Your task to perform on an android device: toggle show notifications on the lock screen Image 0: 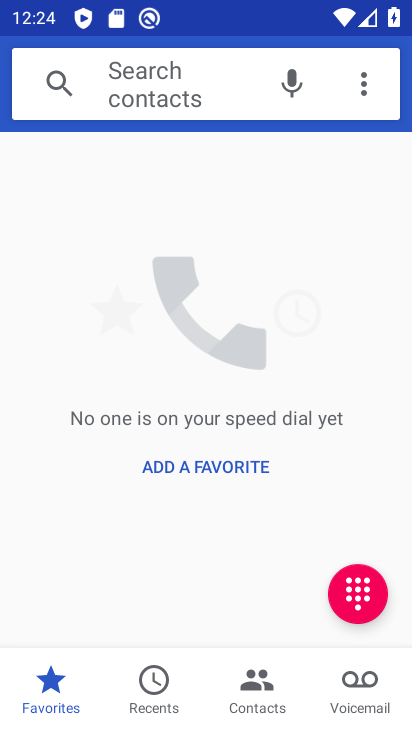
Step 0: press home button
Your task to perform on an android device: toggle show notifications on the lock screen Image 1: 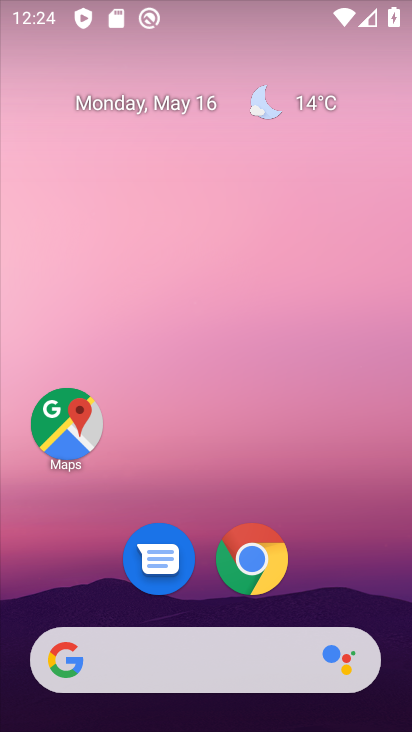
Step 1: drag from (370, 556) to (273, 48)
Your task to perform on an android device: toggle show notifications on the lock screen Image 2: 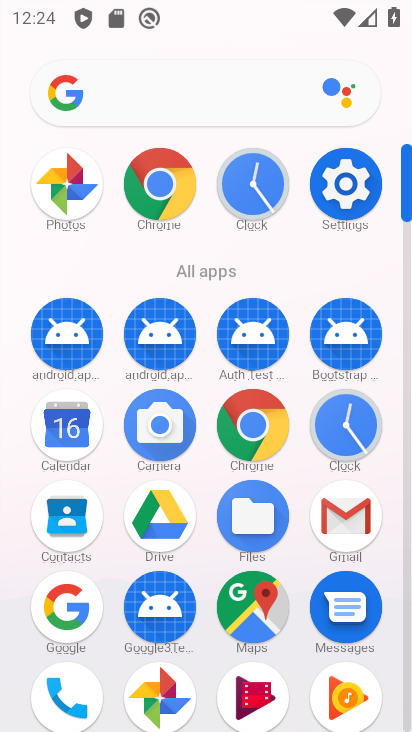
Step 2: click (346, 232)
Your task to perform on an android device: toggle show notifications on the lock screen Image 3: 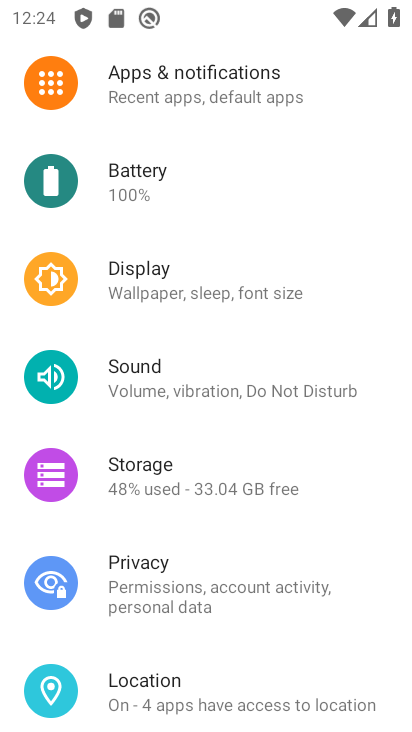
Step 3: click (215, 99)
Your task to perform on an android device: toggle show notifications on the lock screen Image 4: 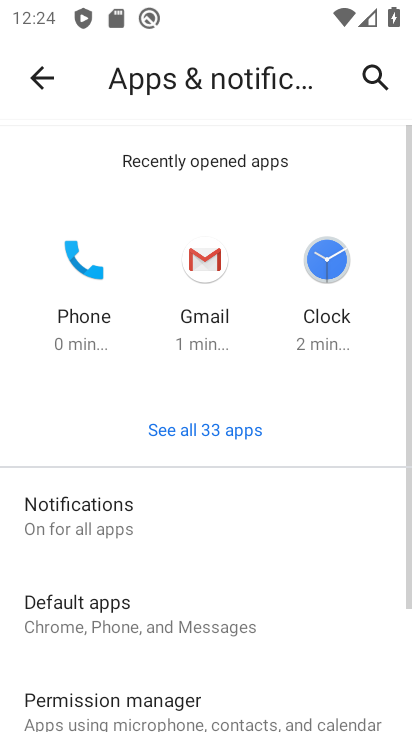
Step 4: click (82, 515)
Your task to perform on an android device: toggle show notifications on the lock screen Image 5: 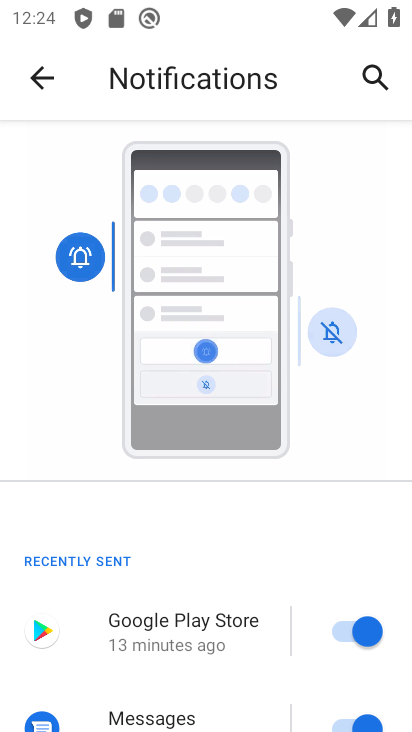
Step 5: drag from (187, 603) to (170, 240)
Your task to perform on an android device: toggle show notifications on the lock screen Image 6: 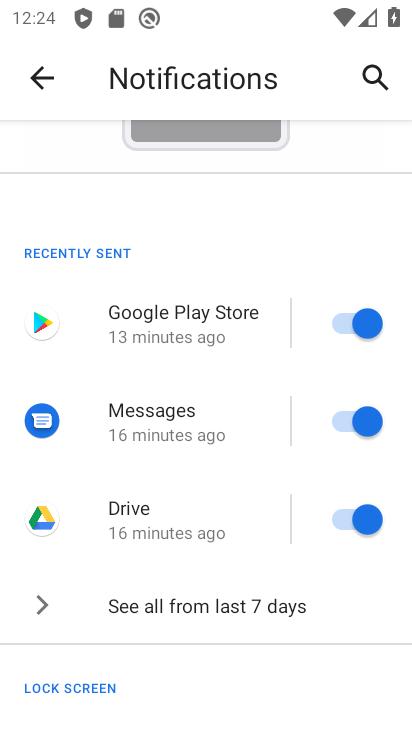
Step 6: drag from (152, 643) to (129, 240)
Your task to perform on an android device: toggle show notifications on the lock screen Image 7: 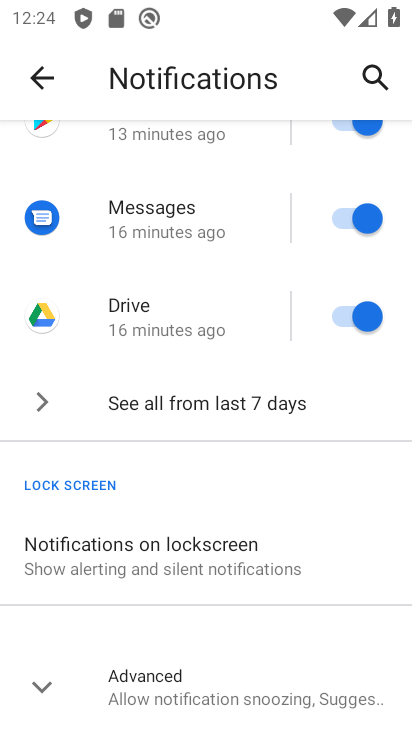
Step 7: drag from (240, 641) to (307, 149)
Your task to perform on an android device: toggle show notifications on the lock screen Image 8: 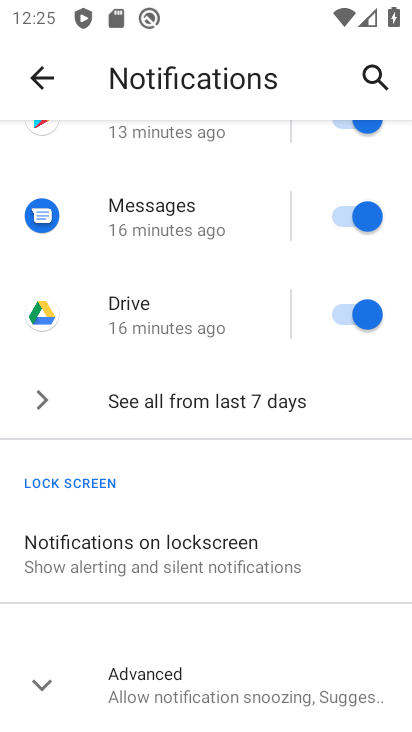
Step 8: click (258, 554)
Your task to perform on an android device: toggle show notifications on the lock screen Image 9: 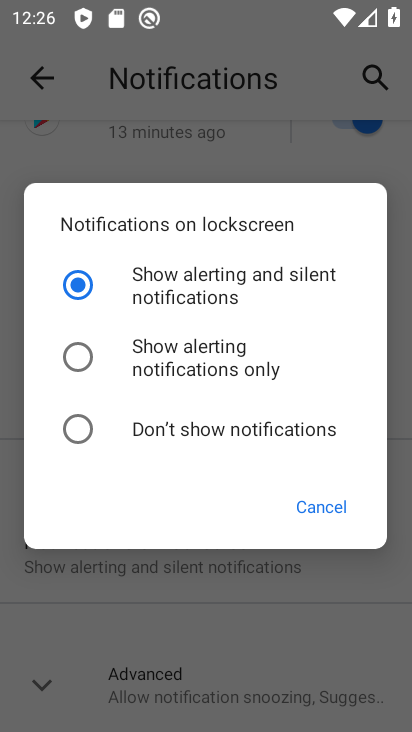
Step 9: click (82, 358)
Your task to perform on an android device: toggle show notifications on the lock screen Image 10: 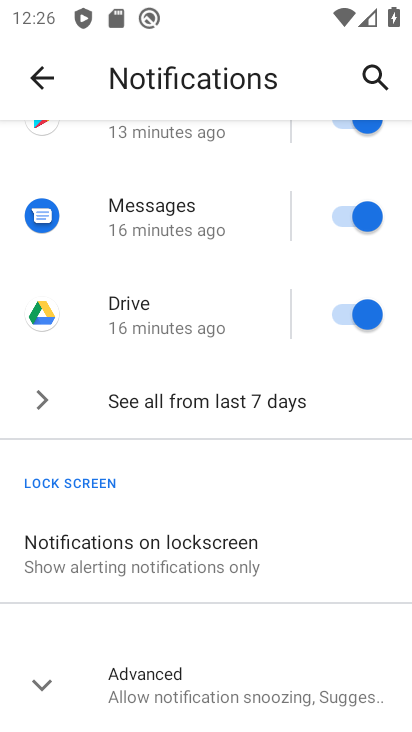
Step 10: click (134, 567)
Your task to perform on an android device: toggle show notifications on the lock screen Image 11: 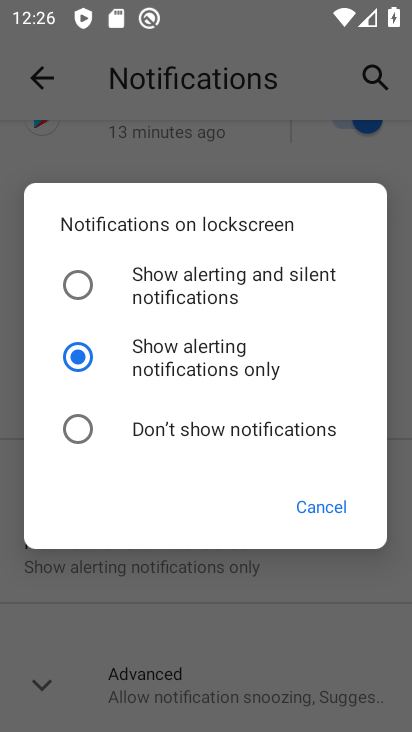
Step 11: task complete